Your task to perform on an android device: remove spam from my inbox in the gmail app Image 0: 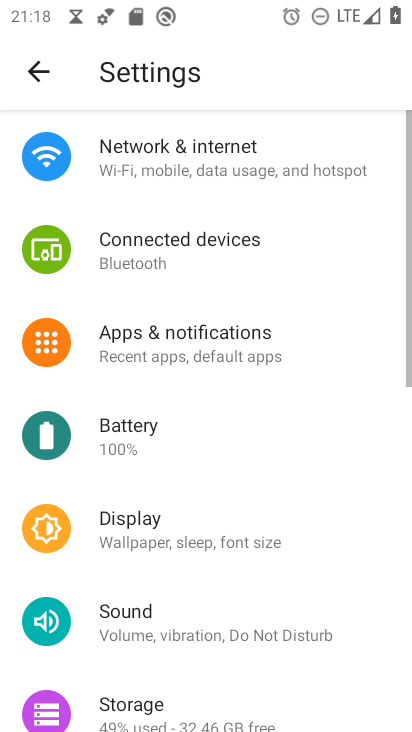
Step 0: press home button
Your task to perform on an android device: remove spam from my inbox in the gmail app Image 1: 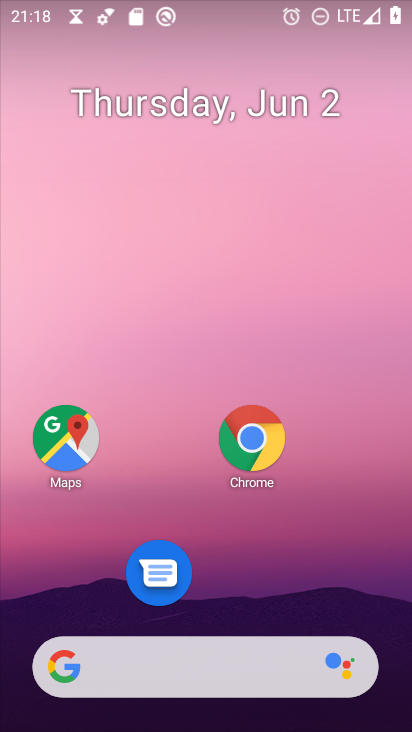
Step 1: drag from (175, 670) to (313, 93)
Your task to perform on an android device: remove spam from my inbox in the gmail app Image 2: 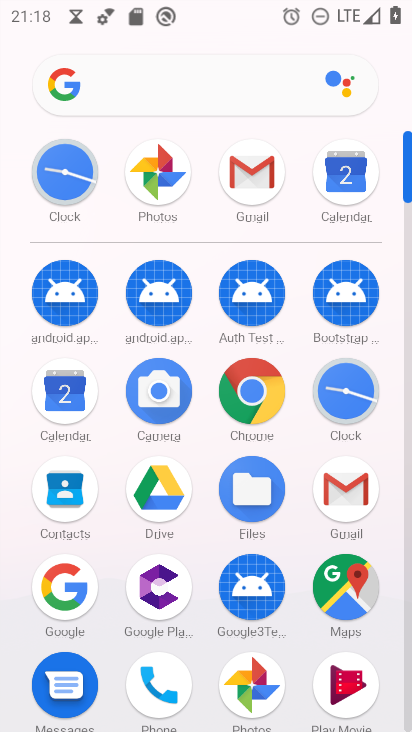
Step 2: click (256, 190)
Your task to perform on an android device: remove spam from my inbox in the gmail app Image 3: 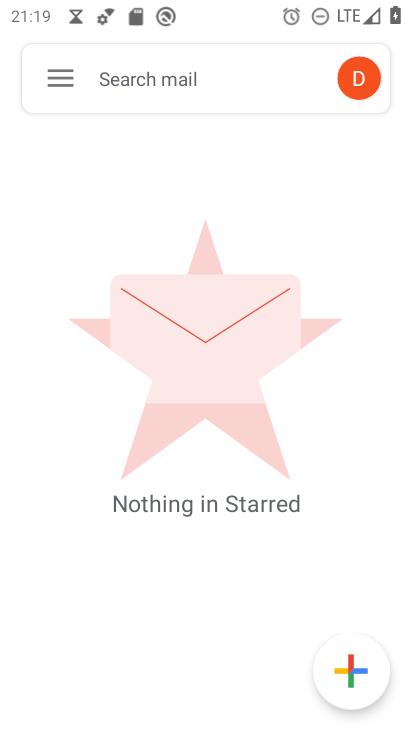
Step 3: click (55, 86)
Your task to perform on an android device: remove spam from my inbox in the gmail app Image 4: 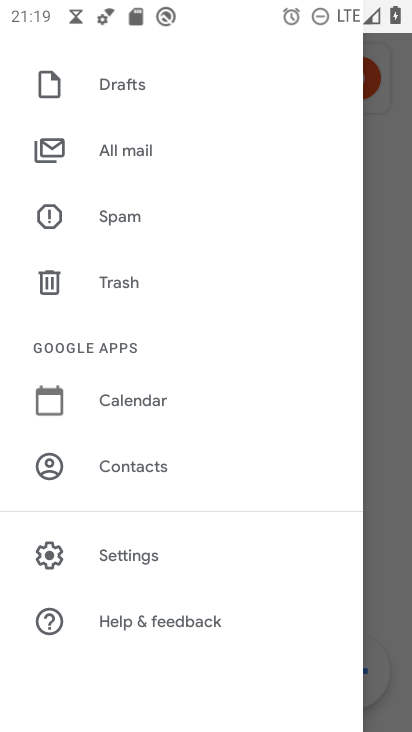
Step 4: click (135, 210)
Your task to perform on an android device: remove spam from my inbox in the gmail app Image 5: 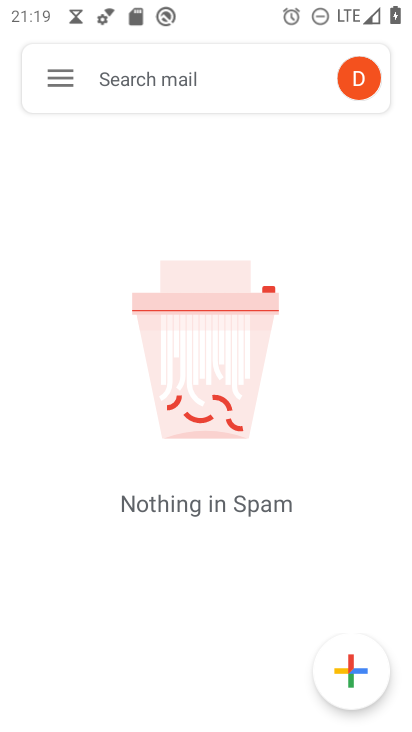
Step 5: task complete